Your task to perform on an android device: Open the phone app and click the voicemail tab. Image 0: 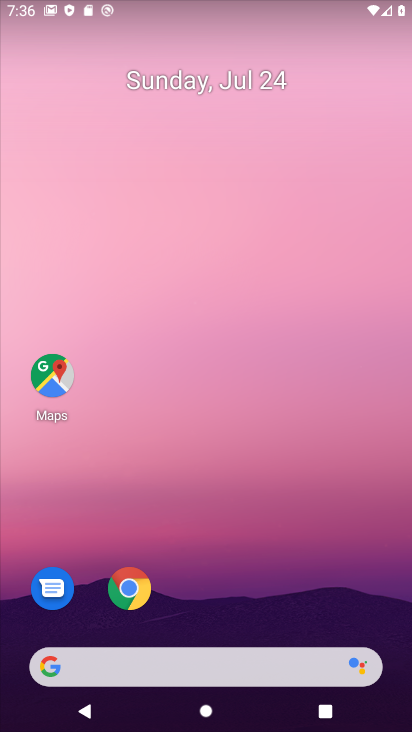
Step 0: drag from (209, 553) to (337, 87)
Your task to perform on an android device: Open the phone app and click the voicemail tab. Image 1: 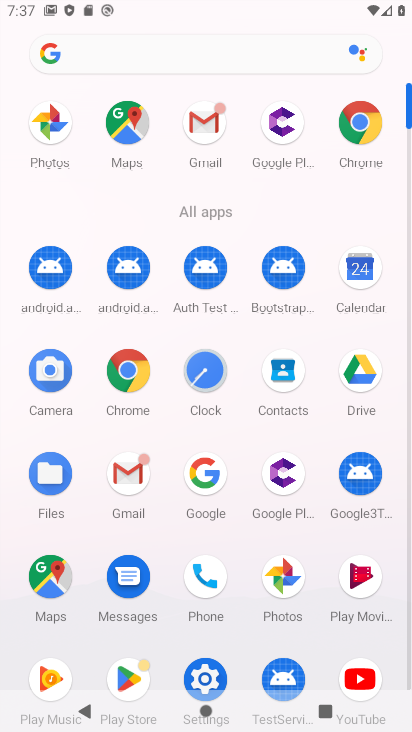
Step 1: click (210, 591)
Your task to perform on an android device: Open the phone app and click the voicemail tab. Image 2: 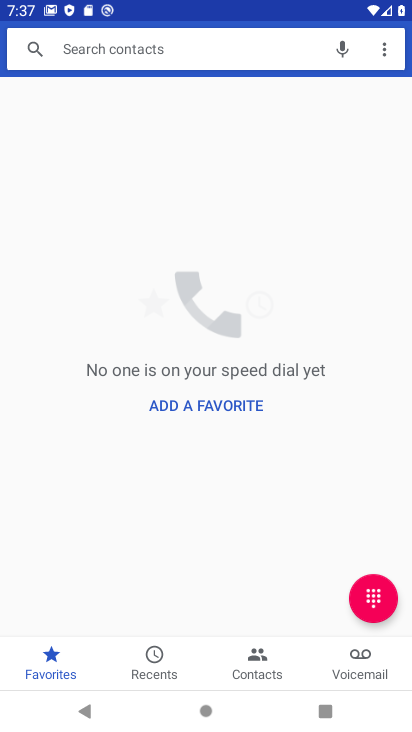
Step 2: click (369, 673)
Your task to perform on an android device: Open the phone app and click the voicemail tab. Image 3: 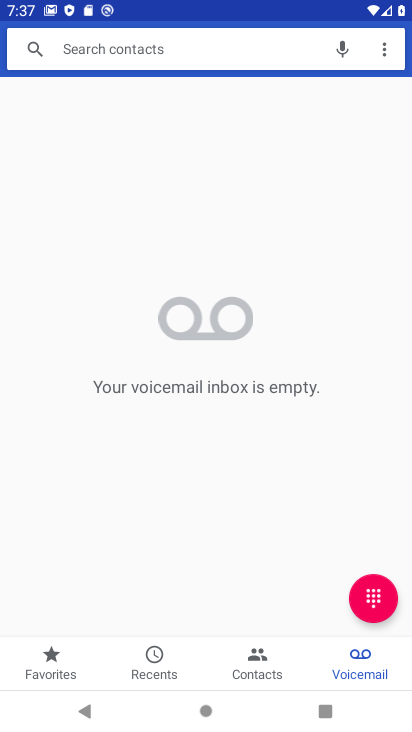
Step 3: task complete